Your task to perform on an android device: Open the web browser Image 0: 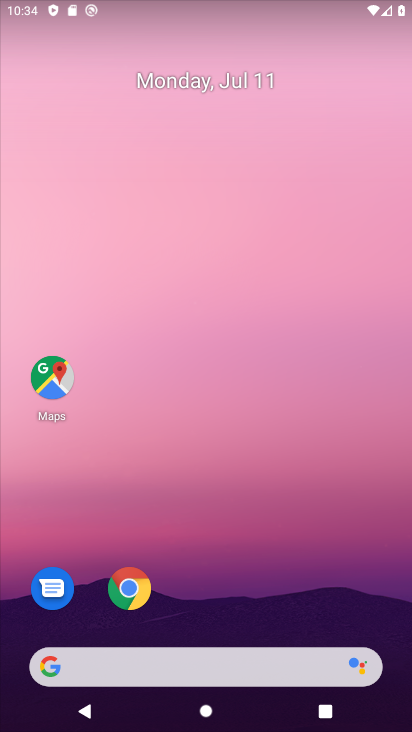
Step 0: click (129, 589)
Your task to perform on an android device: Open the web browser Image 1: 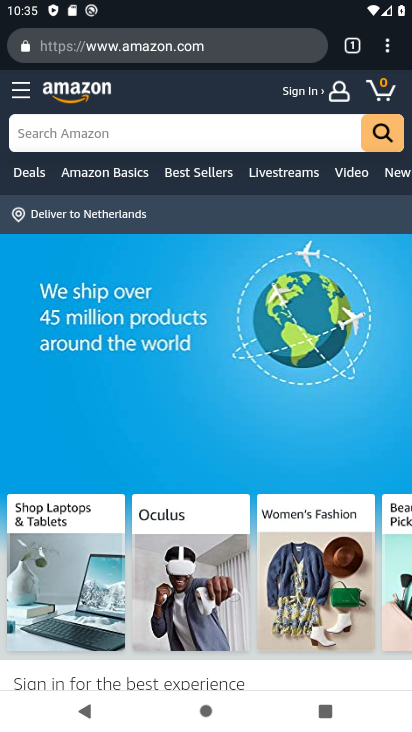
Step 1: task complete